Your task to perform on an android device: Open network settings Image 0: 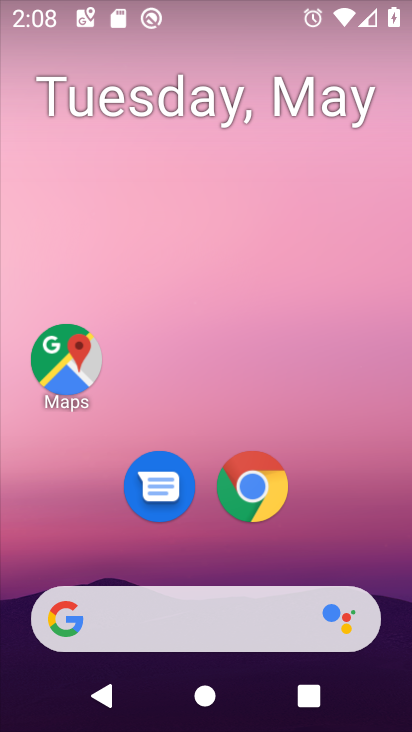
Step 0: drag from (73, 502) to (315, 113)
Your task to perform on an android device: Open network settings Image 1: 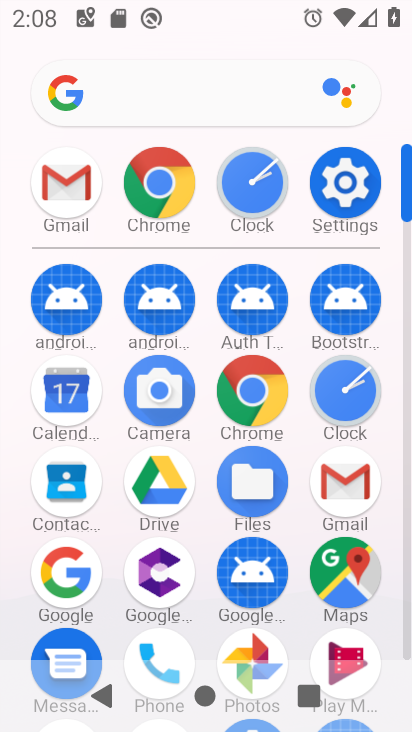
Step 1: click (343, 189)
Your task to perform on an android device: Open network settings Image 2: 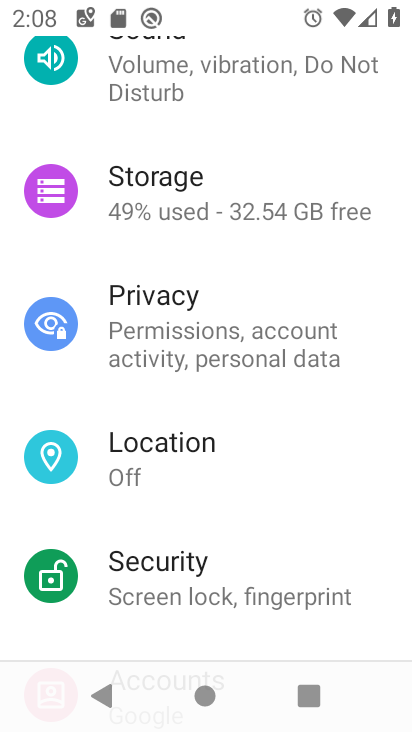
Step 2: drag from (237, 86) to (245, 565)
Your task to perform on an android device: Open network settings Image 3: 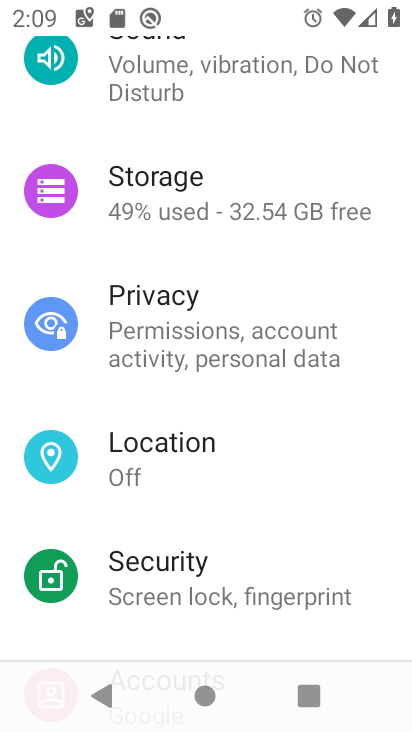
Step 3: drag from (93, 67) to (152, 623)
Your task to perform on an android device: Open network settings Image 4: 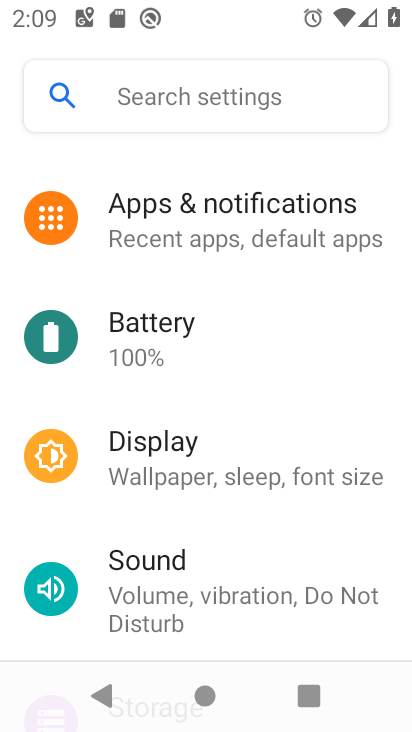
Step 4: drag from (108, 189) to (160, 567)
Your task to perform on an android device: Open network settings Image 5: 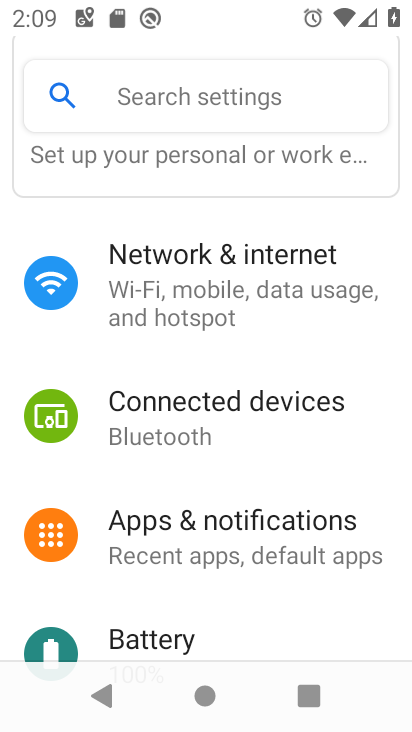
Step 5: click (207, 270)
Your task to perform on an android device: Open network settings Image 6: 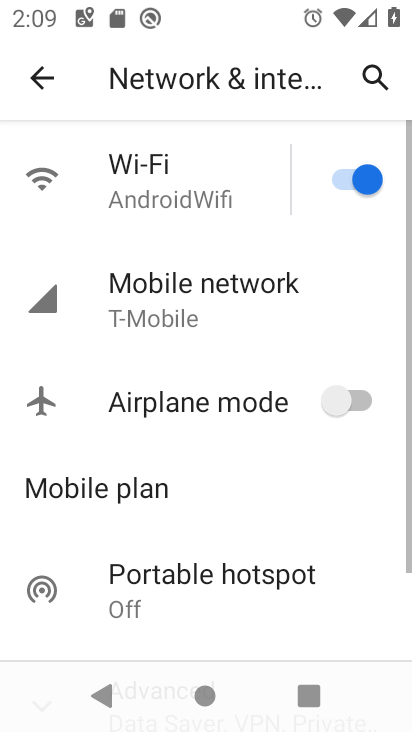
Step 6: click (204, 303)
Your task to perform on an android device: Open network settings Image 7: 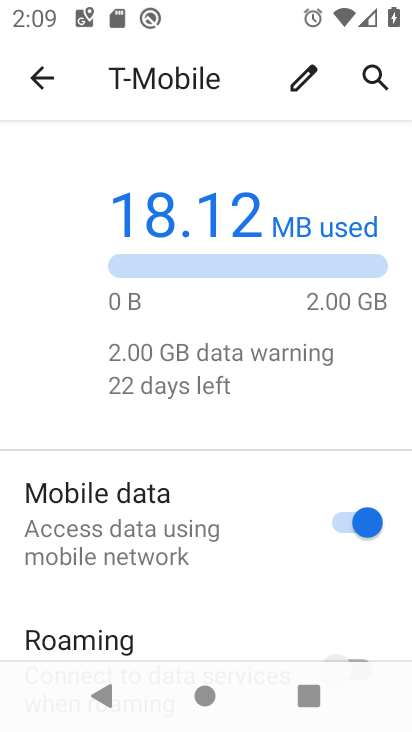
Step 7: task complete